Your task to perform on an android device: Open battery settings Image 0: 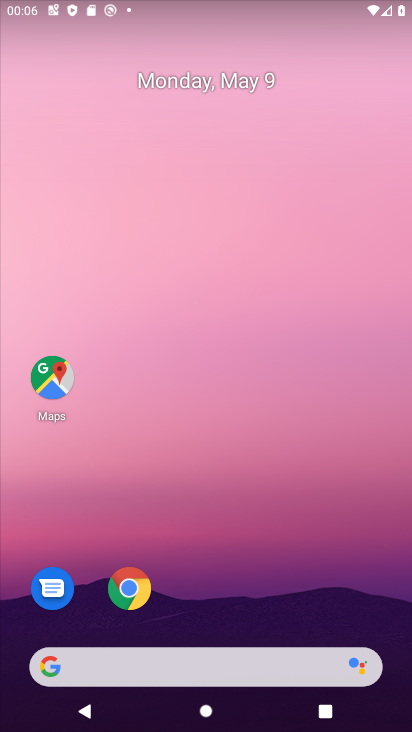
Step 0: drag from (297, 580) to (240, 152)
Your task to perform on an android device: Open battery settings Image 1: 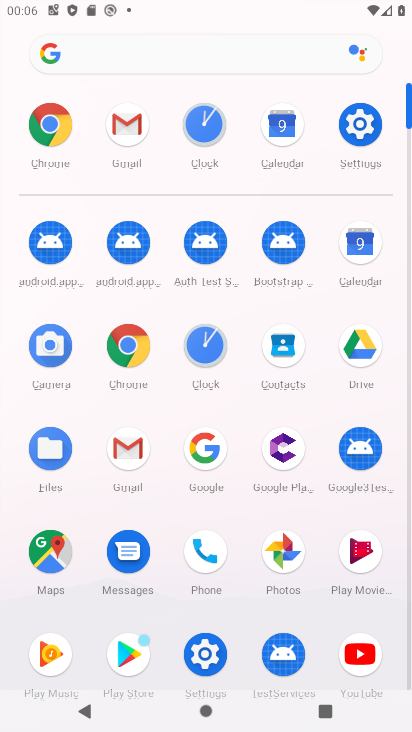
Step 1: click (356, 130)
Your task to perform on an android device: Open battery settings Image 2: 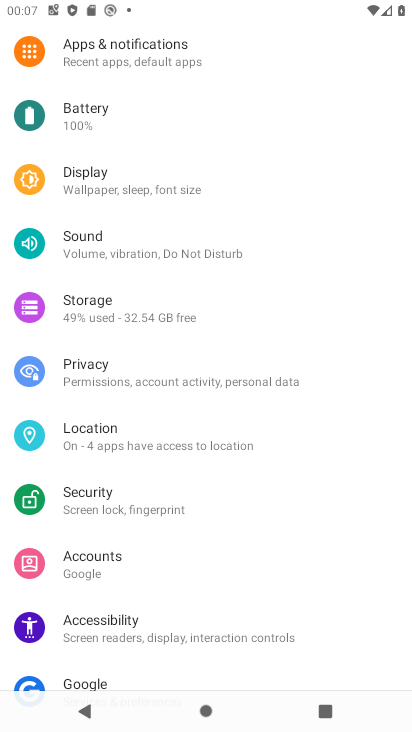
Step 2: click (77, 101)
Your task to perform on an android device: Open battery settings Image 3: 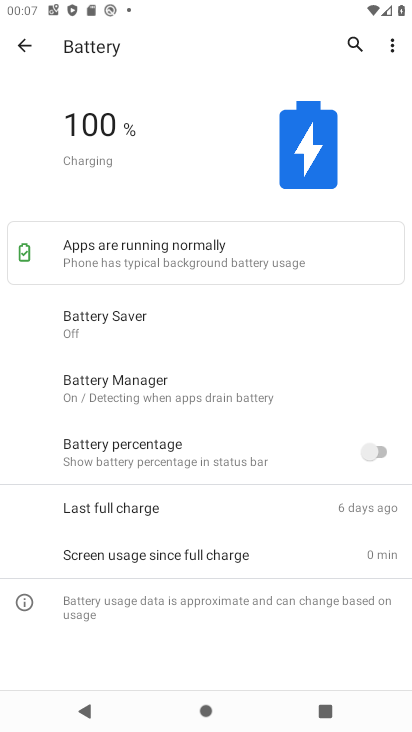
Step 3: task complete